Your task to perform on an android device: see creations saved in the google photos Image 0: 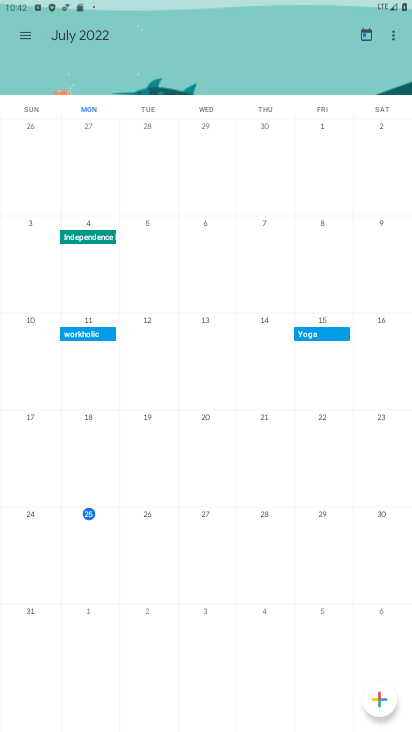
Step 0: press home button
Your task to perform on an android device: see creations saved in the google photos Image 1: 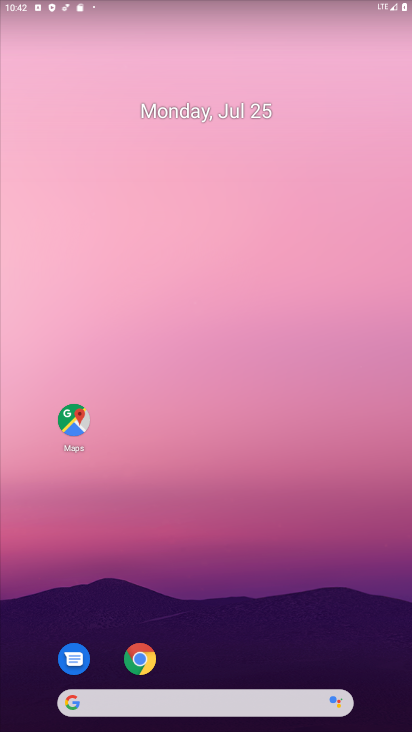
Step 1: drag from (212, 661) to (221, 209)
Your task to perform on an android device: see creations saved in the google photos Image 2: 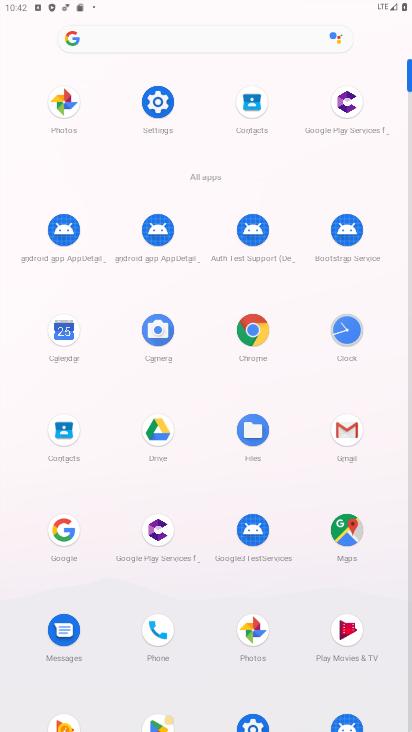
Step 2: click (66, 113)
Your task to perform on an android device: see creations saved in the google photos Image 3: 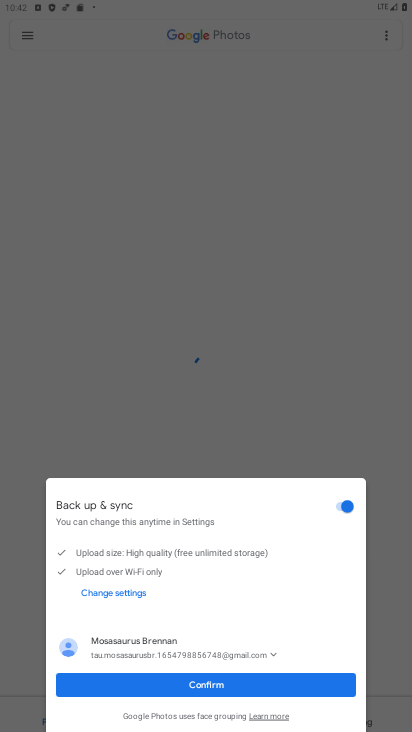
Step 3: click (194, 689)
Your task to perform on an android device: see creations saved in the google photos Image 4: 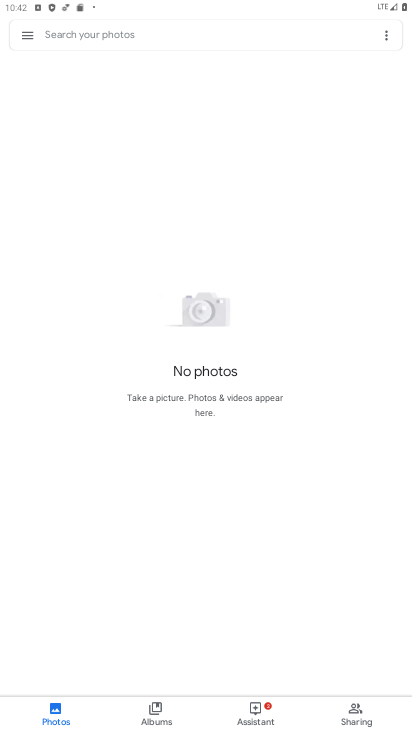
Step 4: click (178, 46)
Your task to perform on an android device: see creations saved in the google photos Image 5: 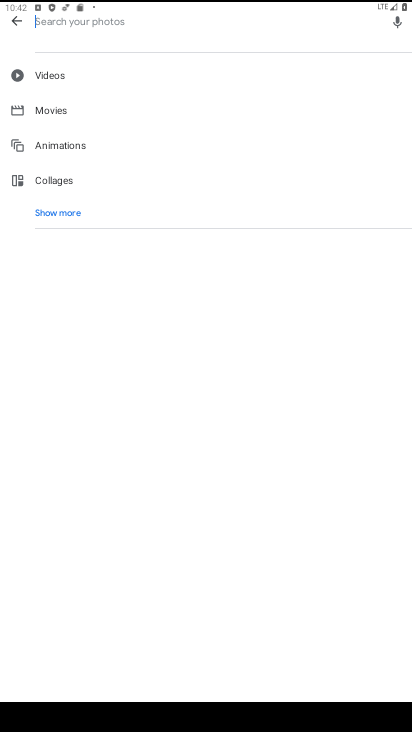
Step 5: click (61, 209)
Your task to perform on an android device: see creations saved in the google photos Image 6: 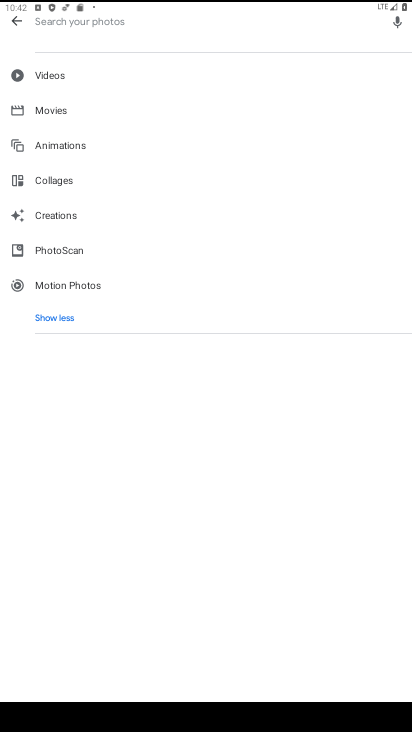
Step 6: click (61, 210)
Your task to perform on an android device: see creations saved in the google photos Image 7: 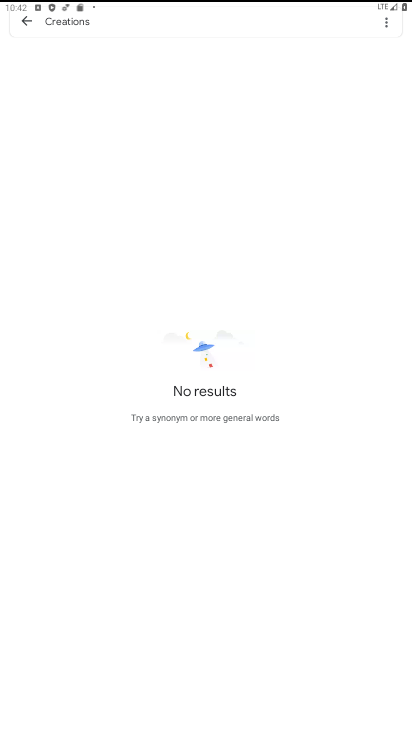
Step 7: task complete